Your task to perform on an android device: turn on the 24-hour format for clock Image 0: 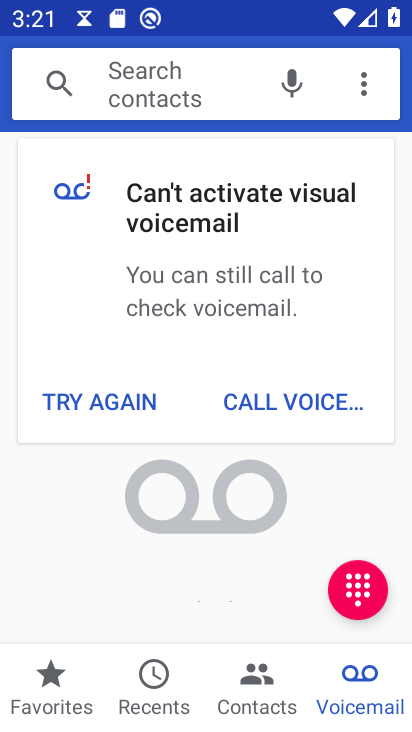
Step 0: press home button
Your task to perform on an android device: turn on the 24-hour format for clock Image 1: 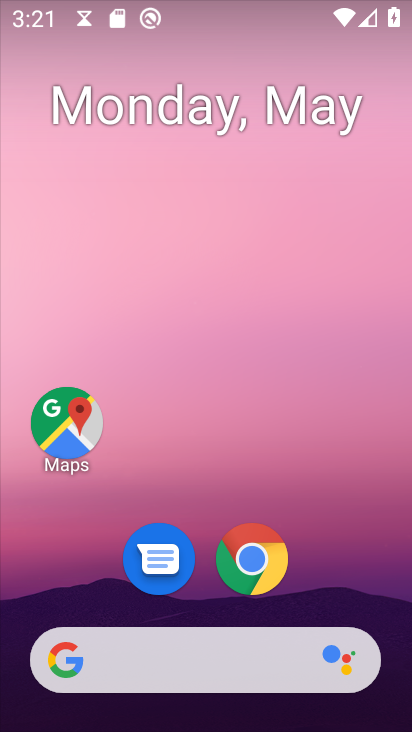
Step 1: drag from (316, 572) to (348, 268)
Your task to perform on an android device: turn on the 24-hour format for clock Image 2: 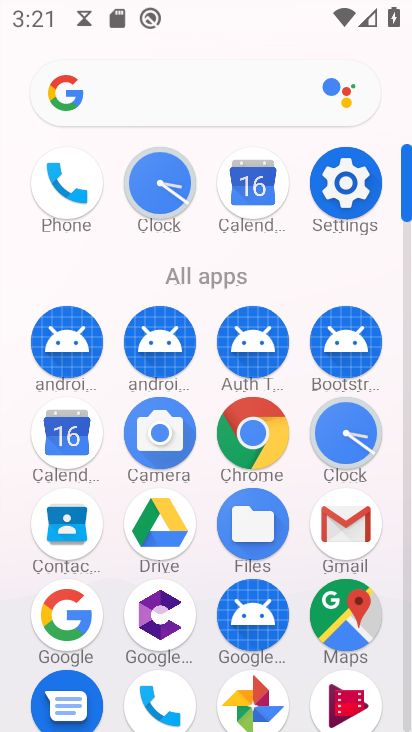
Step 2: click (341, 416)
Your task to perform on an android device: turn on the 24-hour format for clock Image 3: 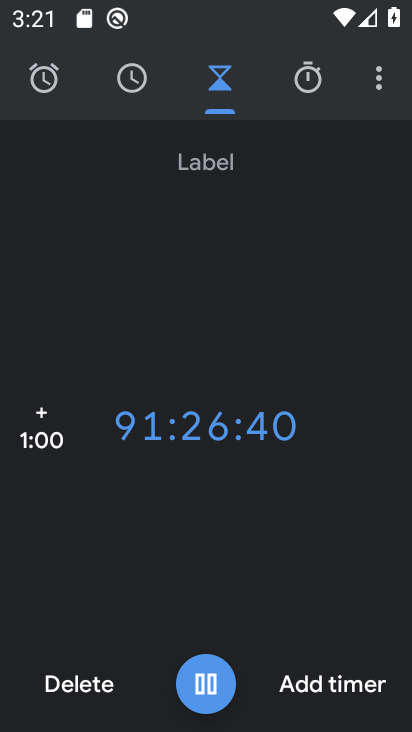
Step 3: click (368, 71)
Your task to perform on an android device: turn on the 24-hour format for clock Image 4: 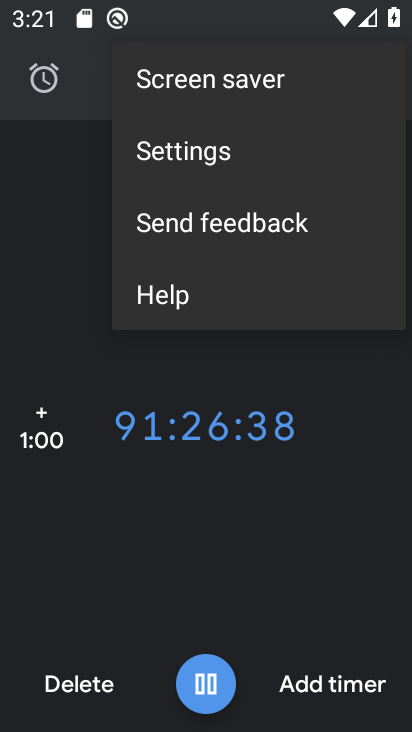
Step 4: click (207, 171)
Your task to perform on an android device: turn on the 24-hour format for clock Image 5: 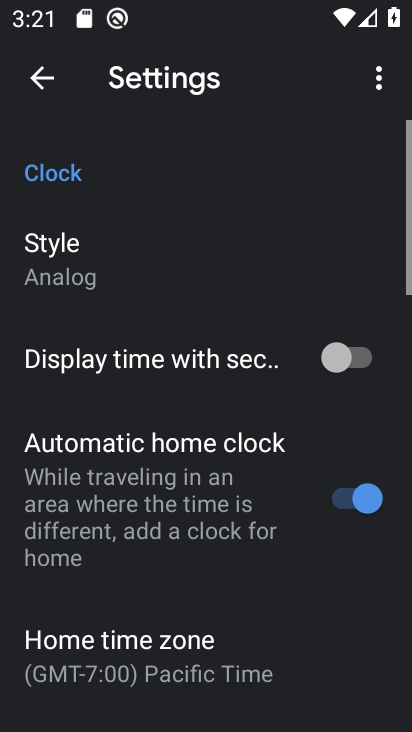
Step 5: drag from (164, 615) to (266, 227)
Your task to perform on an android device: turn on the 24-hour format for clock Image 6: 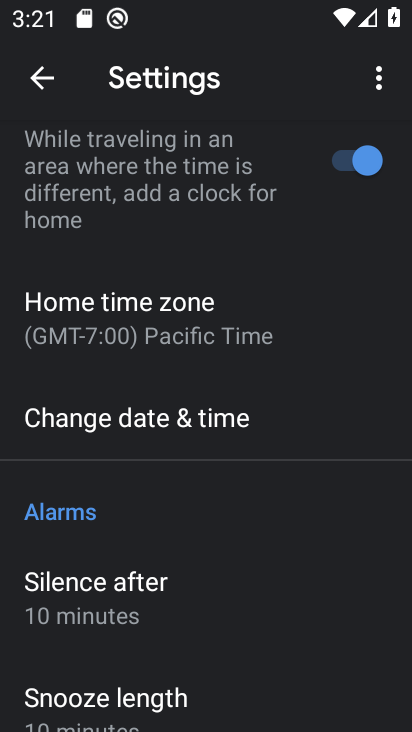
Step 6: click (204, 429)
Your task to perform on an android device: turn on the 24-hour format for clock Image 7: 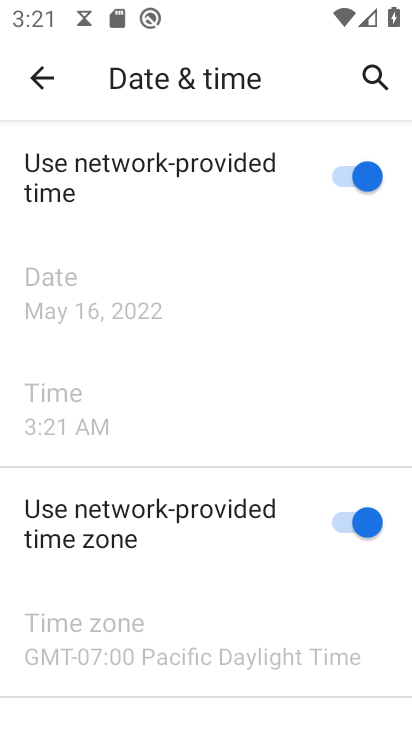
Step 7: drag from (252, 583) to (330, 222)
Your task to perform on an android device: turn on the 24-hour format for clock Image 8: 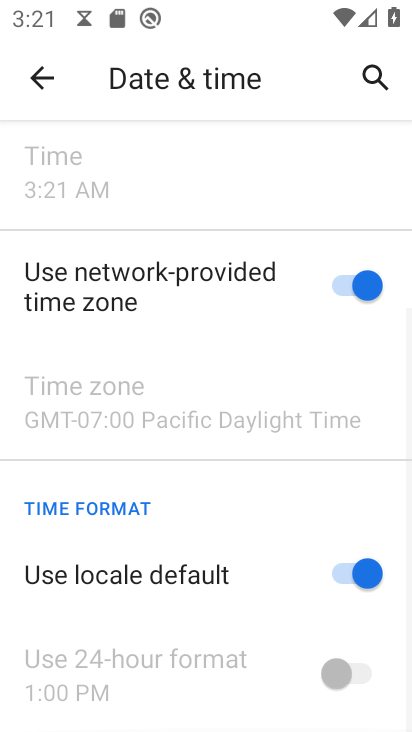
Step 8: click (341, 575)
Your task to perform on an android device: turn on the 24-hour format for clock Image 9: 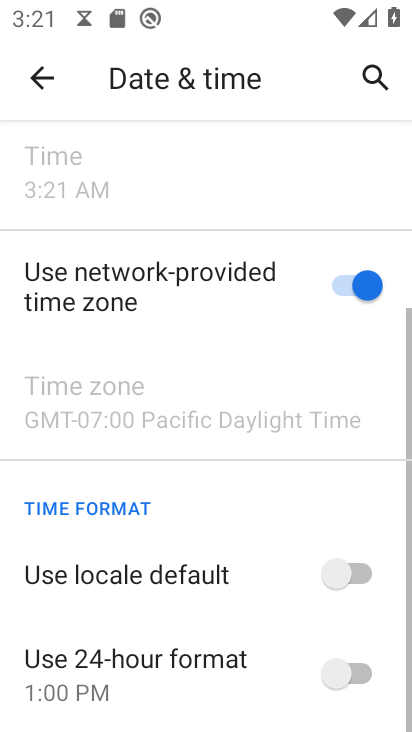
Step 9: click (344, 650)
Your task to perform on an android device: turn on the 24-hour format for clock Image 10: 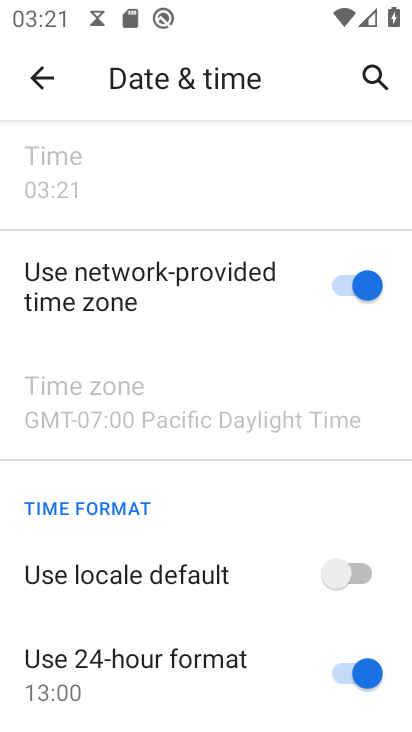
Step 10: task complete